Your task to perform on an android device: Go to Google Image 0: 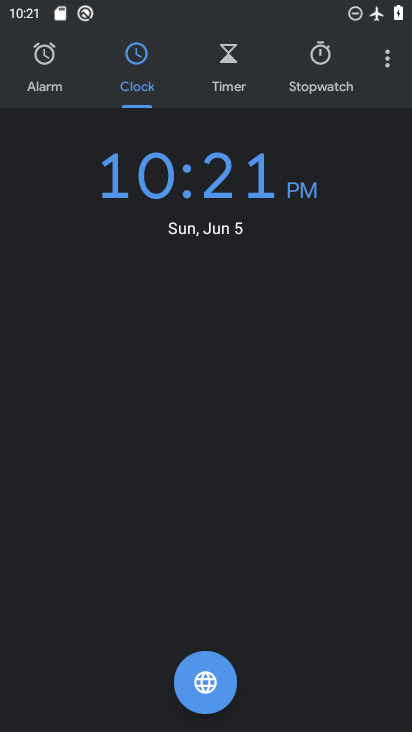
Step 0: press back button
Your task to perform on an android device: Go to Google Image 1: 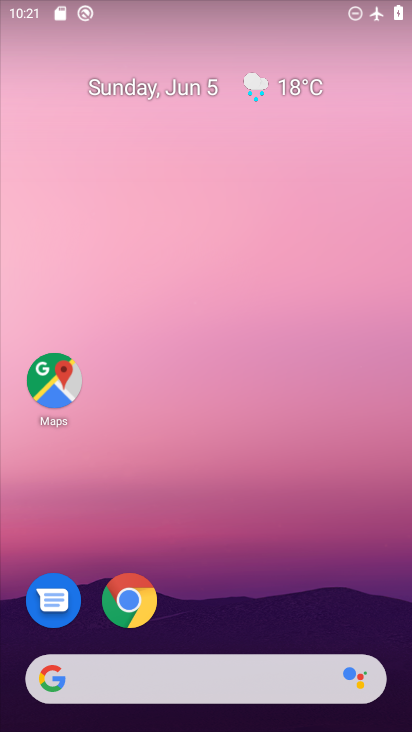
Step 1: drag from (220, 608) to (299, 64)
Your task to perform on an android device: Go to Google Image 2: 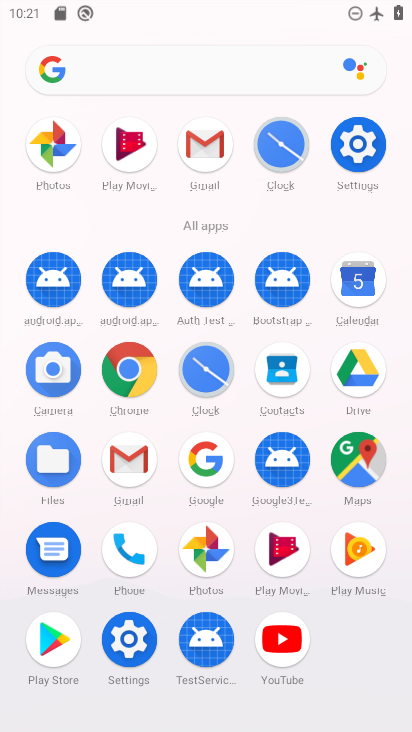
Step 2: click (210, 474)
Your task to perform on an android device: Go to Google Image 3: 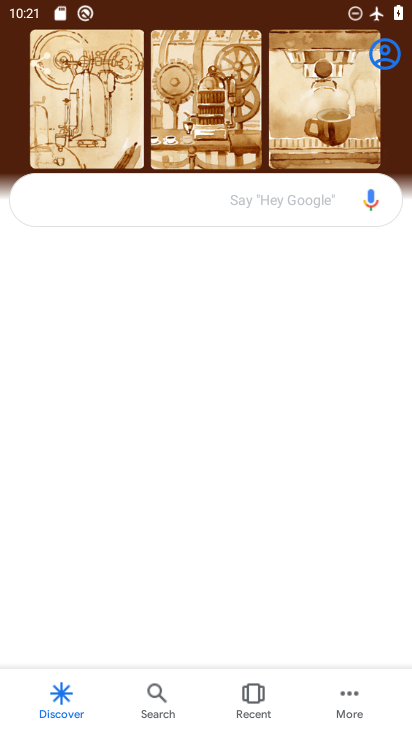
Step 3: task complete